Your task to perform on an android device: toggle sleep mode Image 0: 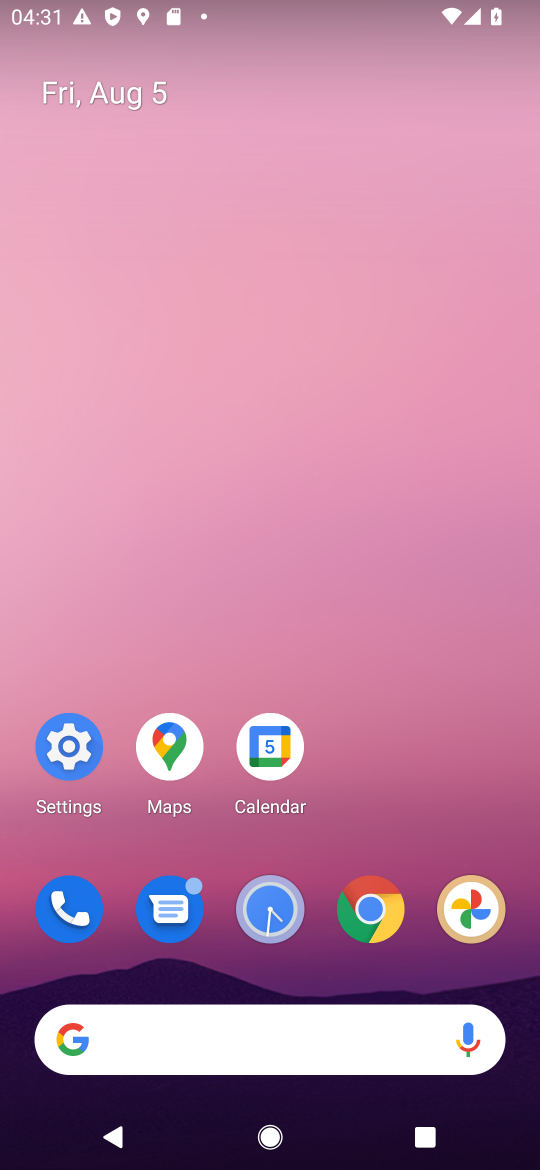
Step 0: click (62, 751)
Your task to perform on an android device: toggle sleep mode Image 1: 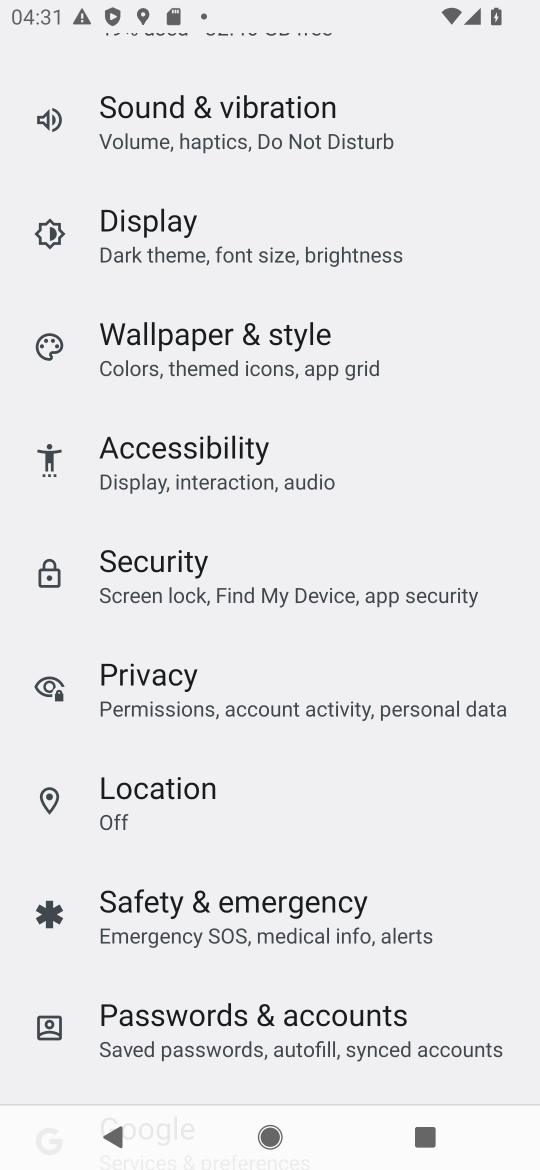
Step 1: drag from (407, 236) to (345, 761)
Your task to perform on an android device: toggle sleep mode Image 2: 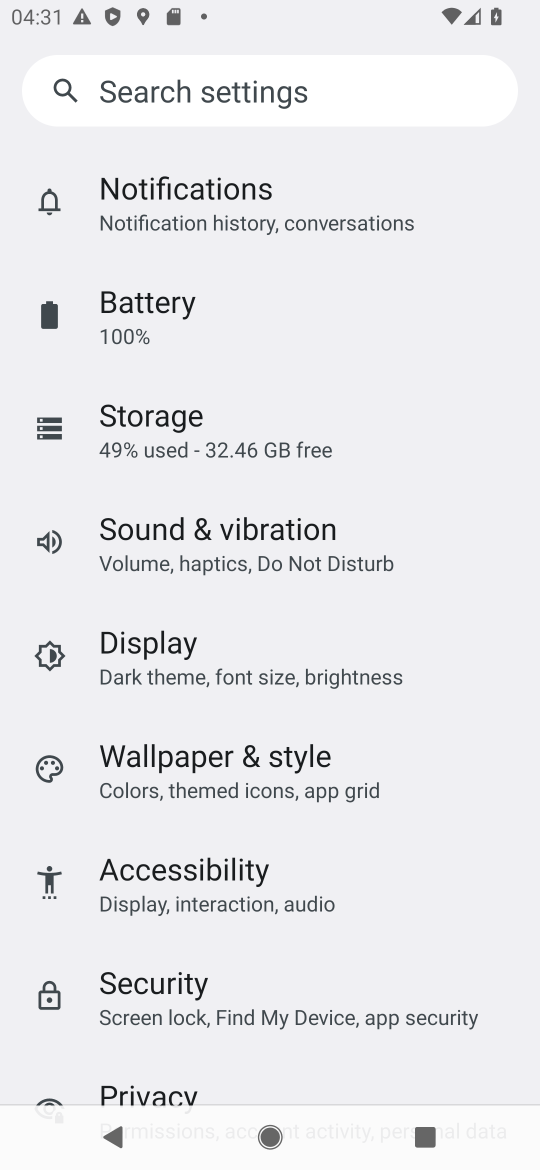
Step 2: drag from (319, 292) to (312, 626)
Your task to perform on an android device: toggle sleep mode Image 3: 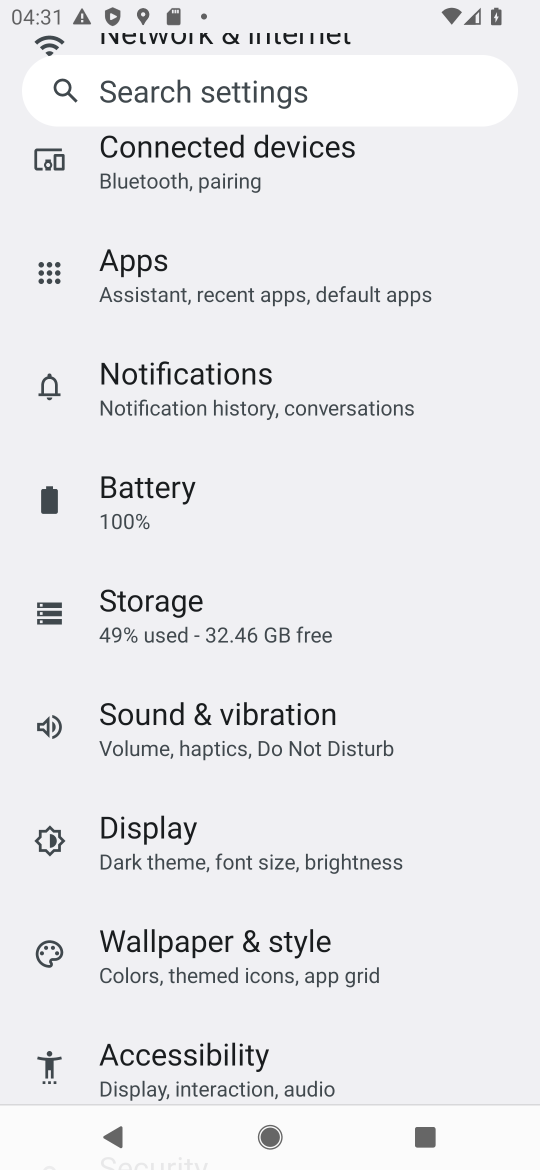
Step 3: drag from (313, 218) to (296, 661)
Your task to perform on an android device: toggle sleep mode Image 4: 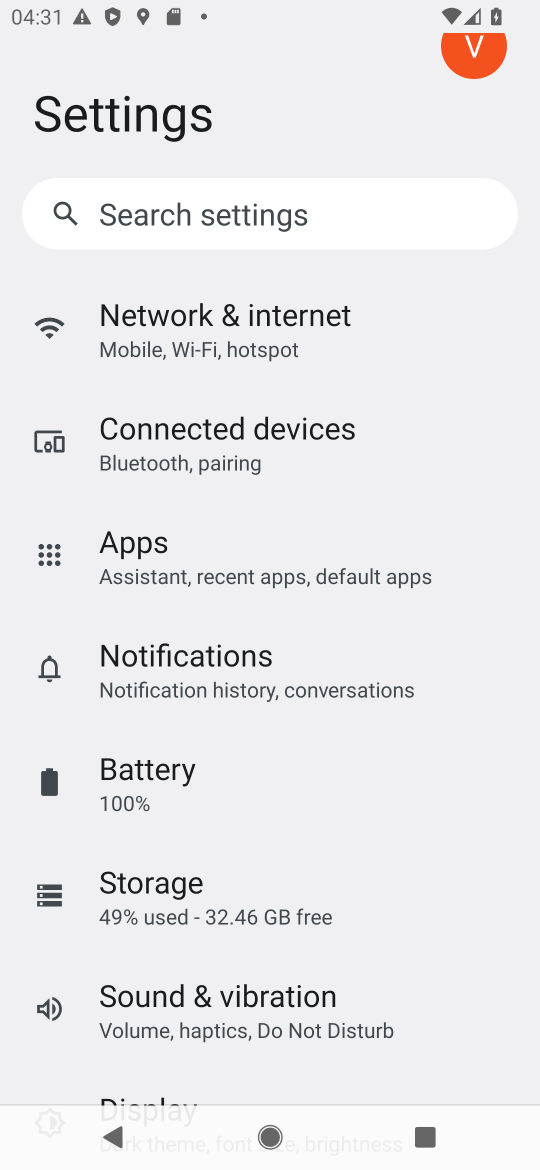
Step 4: drag from (467, 862) to (372, 198)
Your task to perform on an android device: toggle sleep mode Image 5: 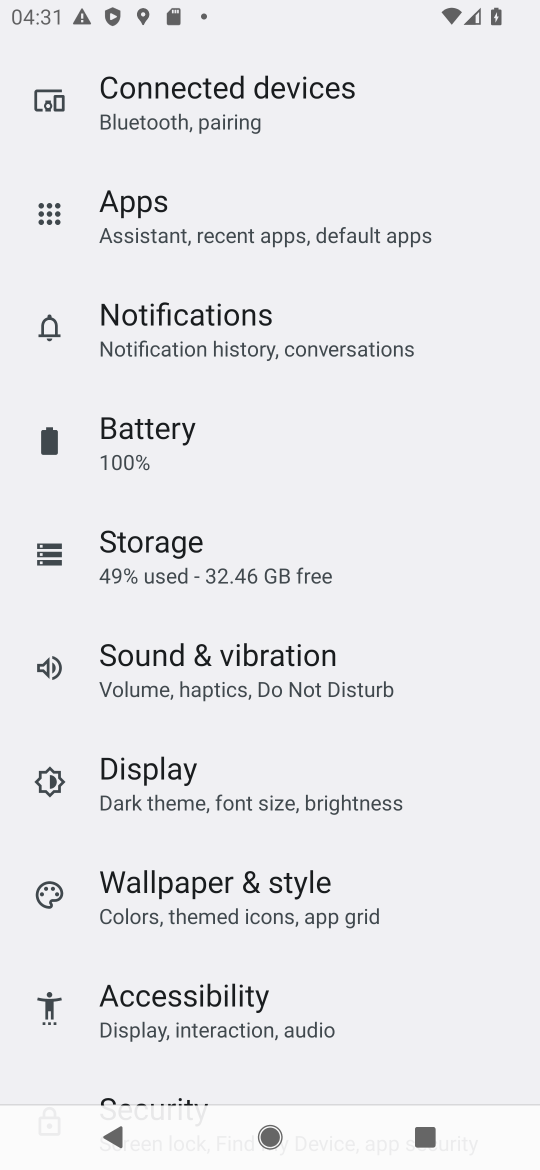
Step 5: click (161, 780)
Your task to perform on an android device: toggle sleep mode Image 6: 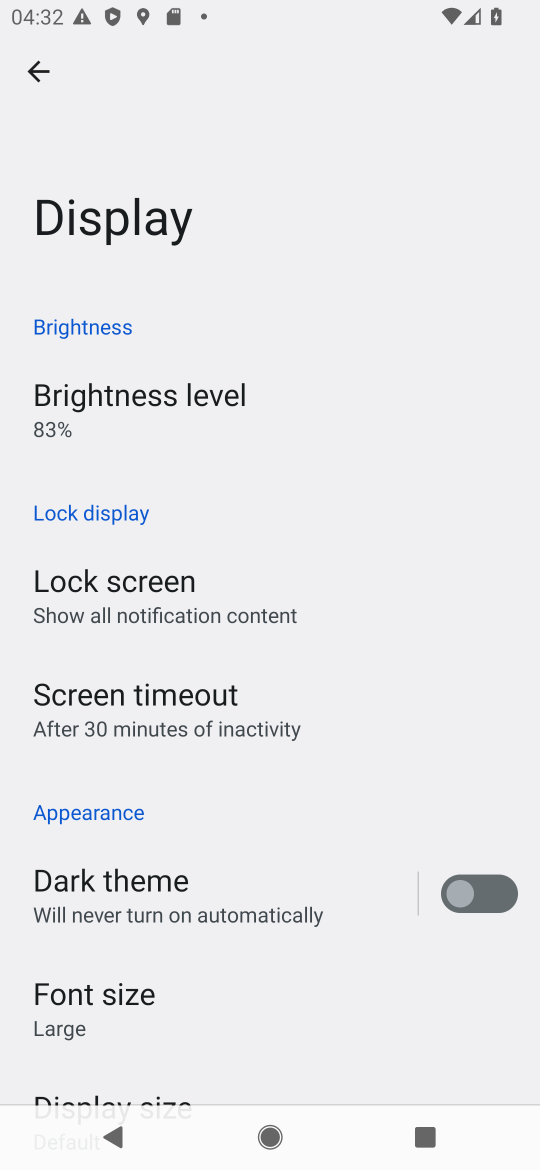
Step 6: task complete